Your task to perform on an android device: turn off sleep mode Image 0: 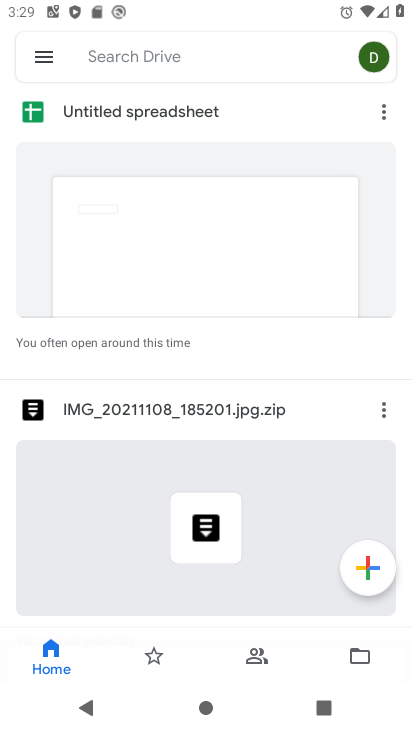
Step 0: press back button
Your task to perform on an android device: turn off sleep mode Image 1: 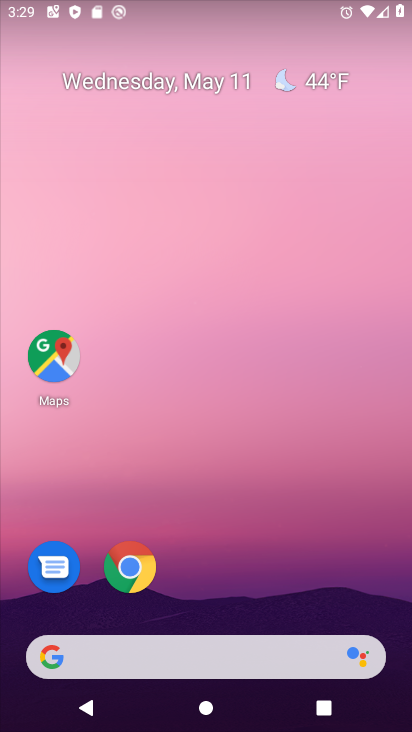
Step 1: drag from (233, 530) to (210, 24)
Your task to perform on an android device: turn off sleep mode Image 2: 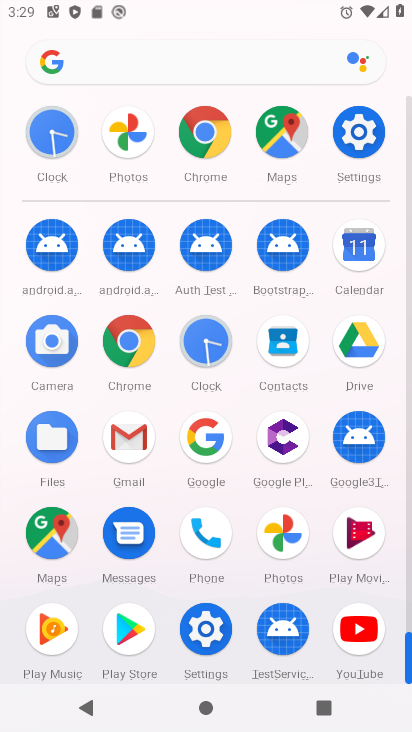
Step 2: click (207, 625)
Your task to perform on an android device: turn off sleep mode Image 3: 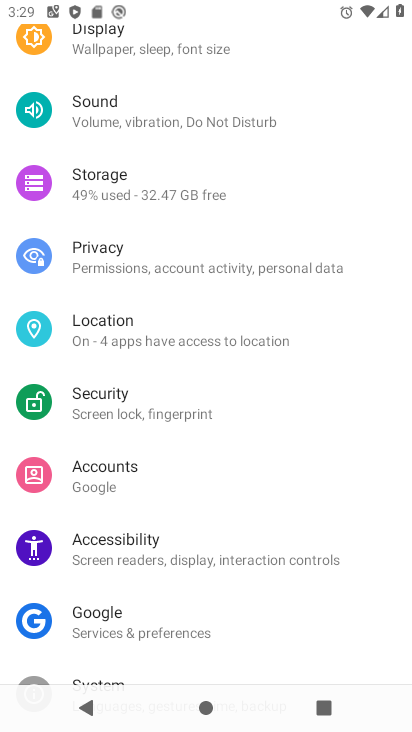
Step 3: drag from (232, 149) to (237, 458)
Your task to perform on an android device: turn off sleep mode Image 4: 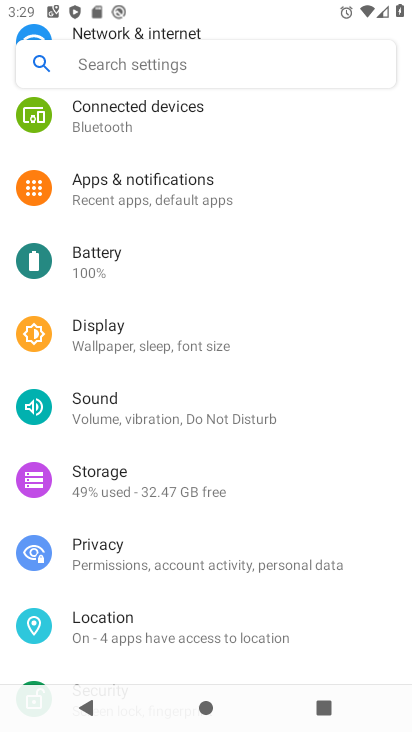
Step 4: drag from (238, 152) to (251, 560)
Your task to perform on an android device: turn off sleep mode Image 5: 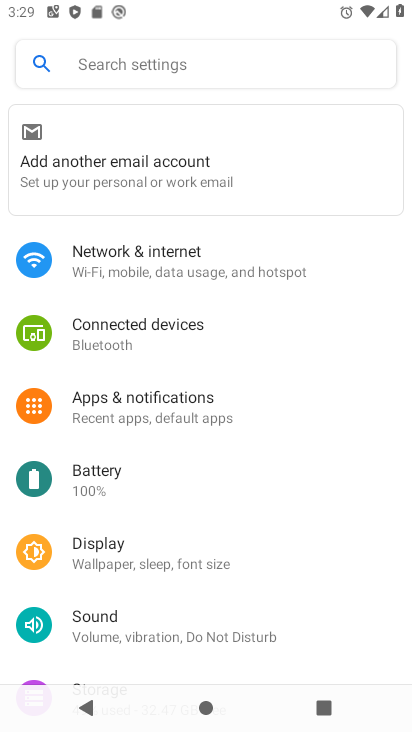
Step 5: click (220, 262)
Your task to perform on an android device: turn off sleep mode Image 6: 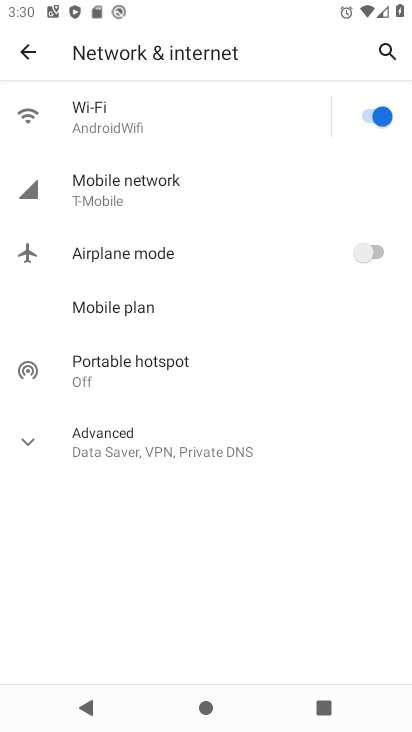
Step 6: click (29, 443)
Your task to perform on an android device: turn off sleep mode Image 7: 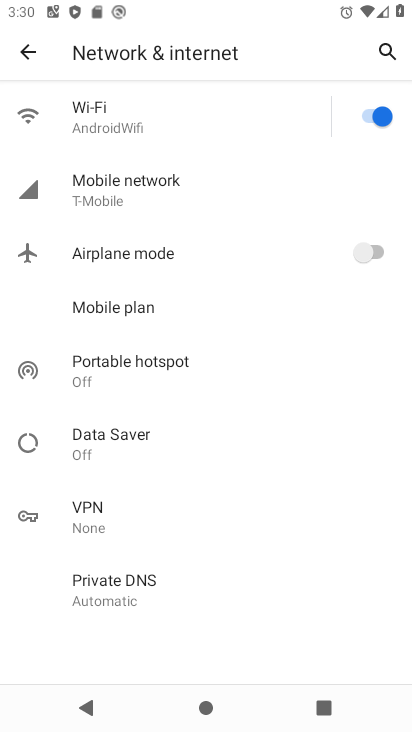
Step 7: task complete